Your task to perform on an android device: turn off airplane mode Image 0: 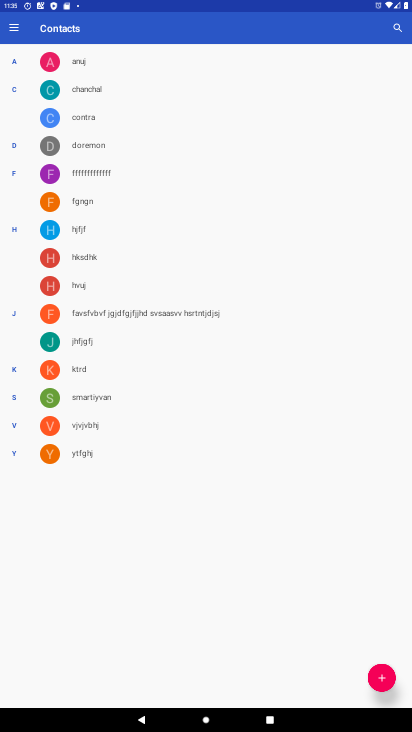
Step 0: press home button
Your task to perform on an android device: turn off airplane mode Image 1: 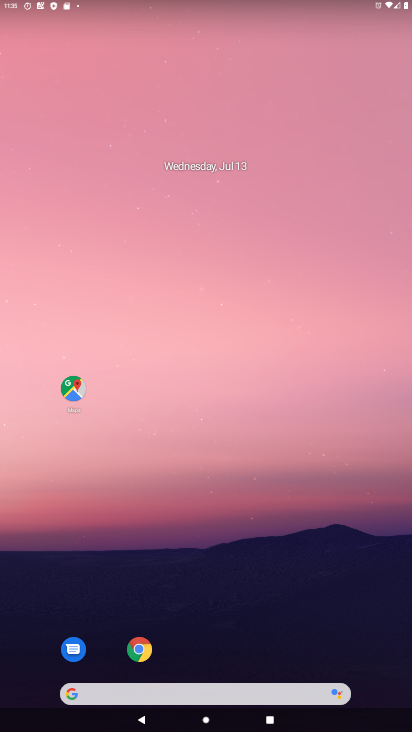
Step 1: drag from (250, 694) to (225, 168)
Your task to perform on an android device: turn off airplane mode Image 2: 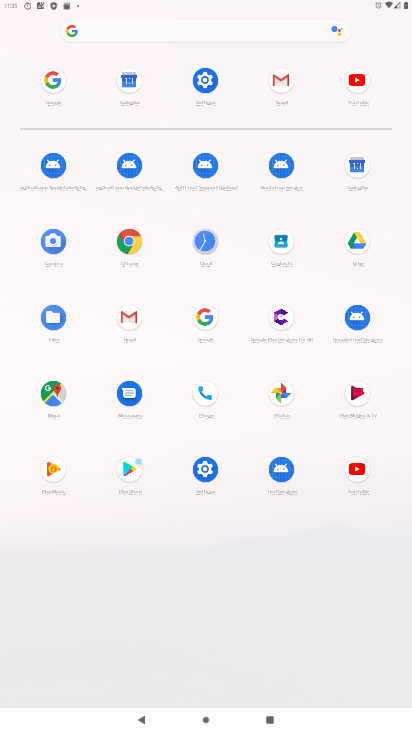
Step 2: click (205, 82)
Your task to perform on an android device: turn off airplane mode Image 3: 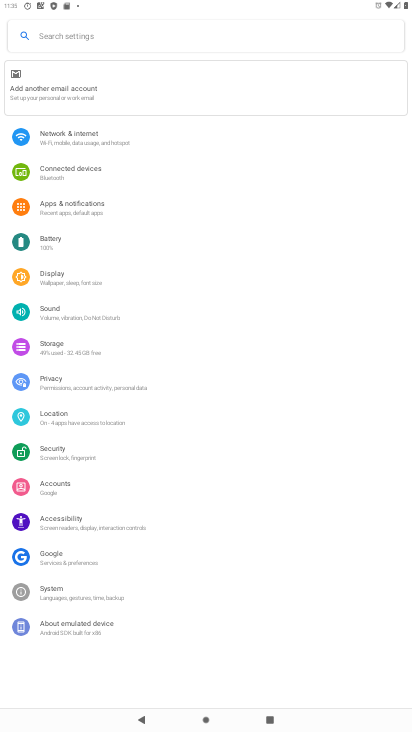
Step 3: click (90, 135)
Your task to perform on an android device: turn off airplane mode Image 4: 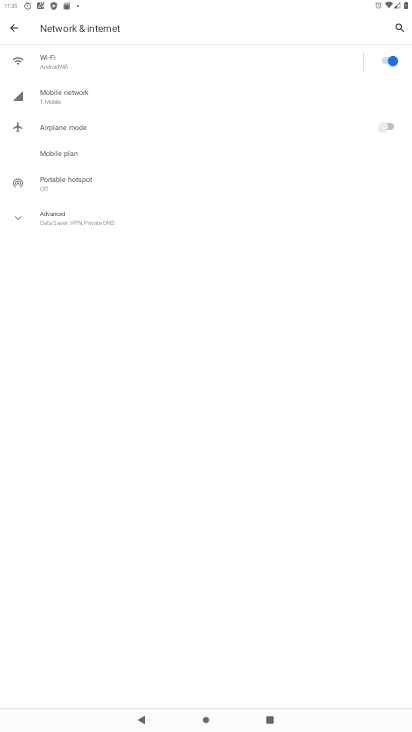
Step 4: task complete